Your task to perform on an android device: turn on the 12-hour format for clock Image 0: 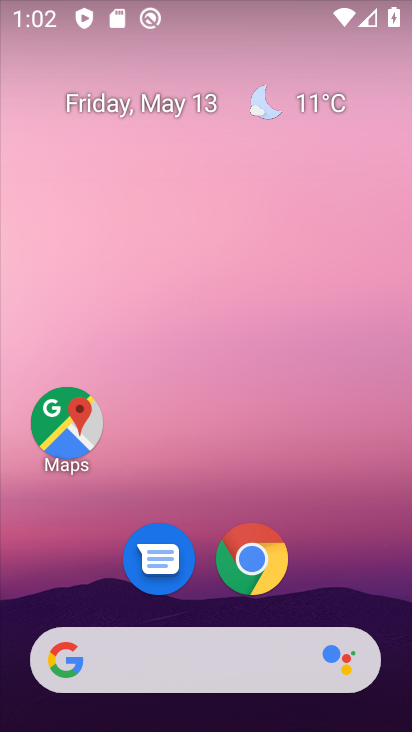
Step 0: drag from (372, 611) to (342, 164)
Your task to perform on an android device: turn on the 12-hour format for clock Image 1: 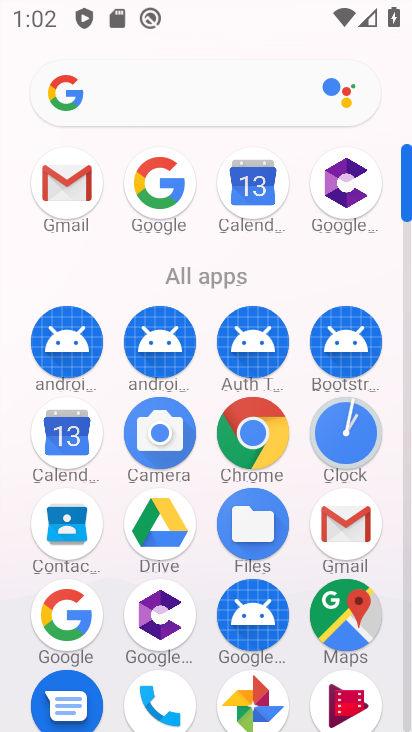
Step 1: click (331, 430)
Your task to perform on an android device: turn on the 12-hour format for clock Image 2: 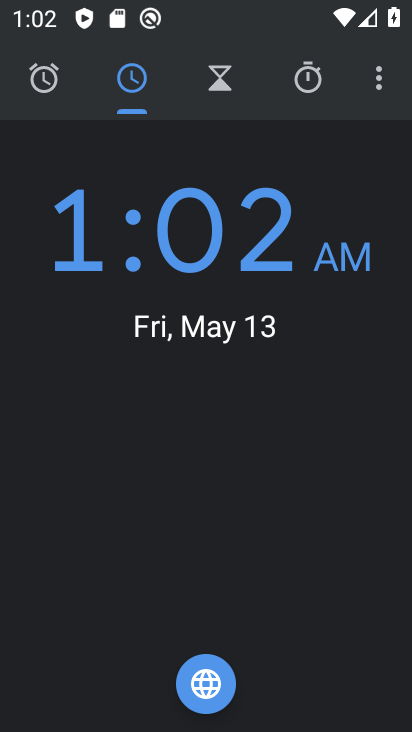
Step 2: click (380, 73)
Your task to perform on an android device: turn on the 12-hour format for clock Image 3: 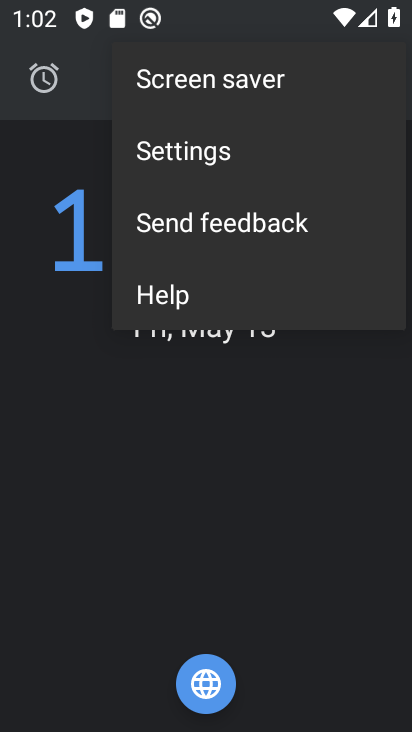
Step 3: click (184, 162)
Your task to perform on an android device: turn on the 12-hour format for clock Image 4: 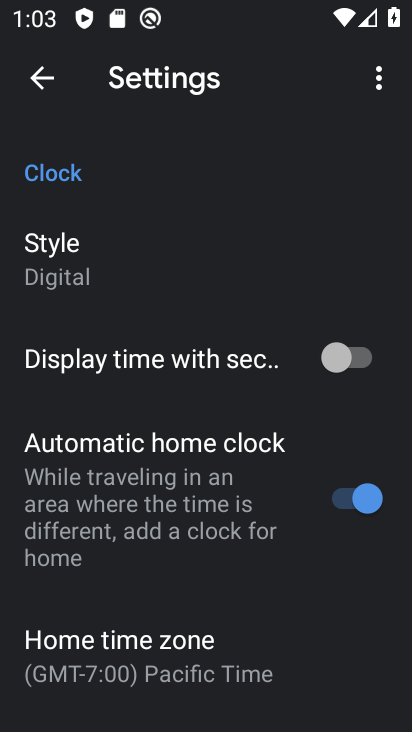
Step 4: drag from (289, 637) to (270, 314)
Your task to perform on an android device: turn on the 12-hour format for clock Image 5: 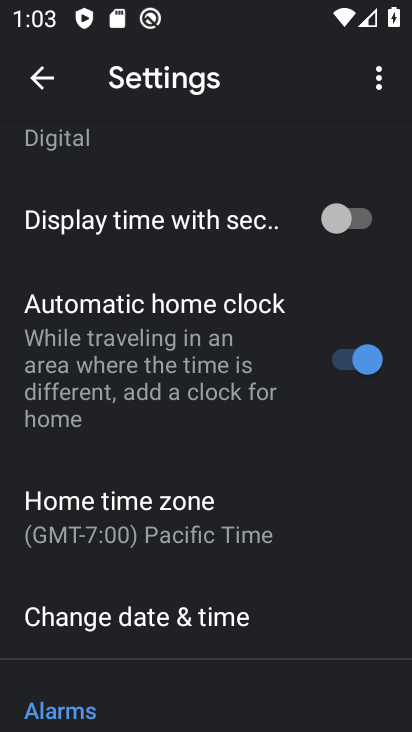
Step 5: drag from (167, 713) to (181, 336)
Your task to perform on an android device: turn on the 12-hour format for clock Image 6: 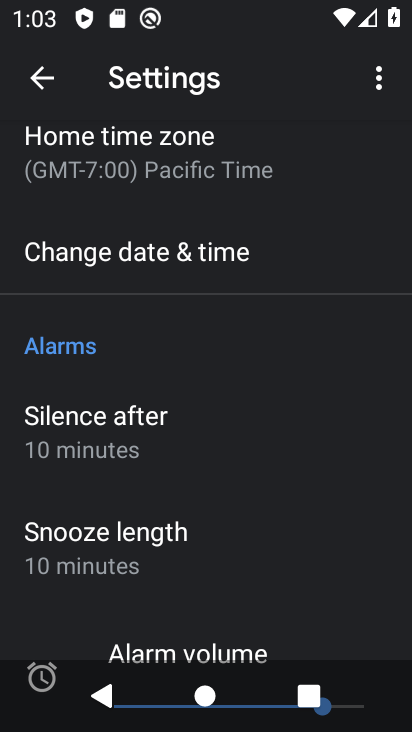
Step 6: drag from (285, 558) to (299, 243)
Your task to perform on an android device: turn on the 12-hour format for clock Image 7: 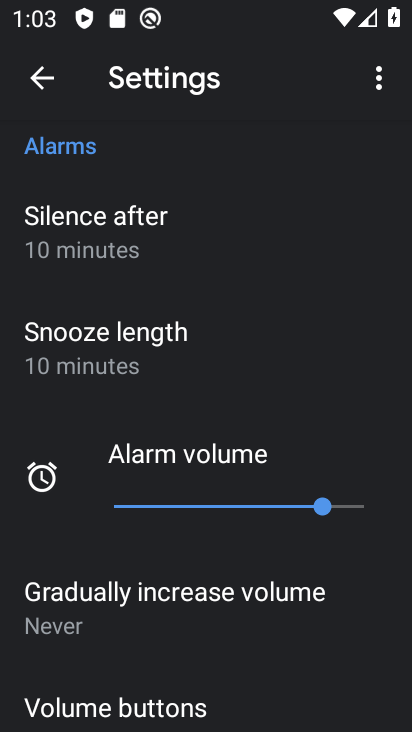
Step 7: drag from (215, 619) to (214, 363)
Your task to perform on an android device: turn on the 12-hour format for clock Image 8: 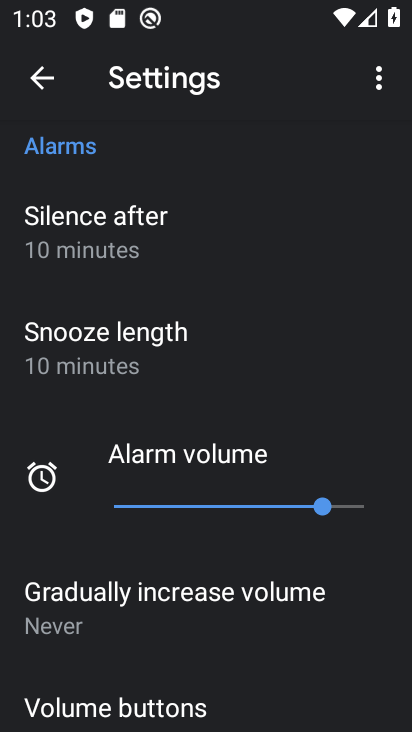
Step 8: drag from (226, 679) to (240, 293)
Your task to perform on an android device: turn on the 12-hour format for clock Image 9: 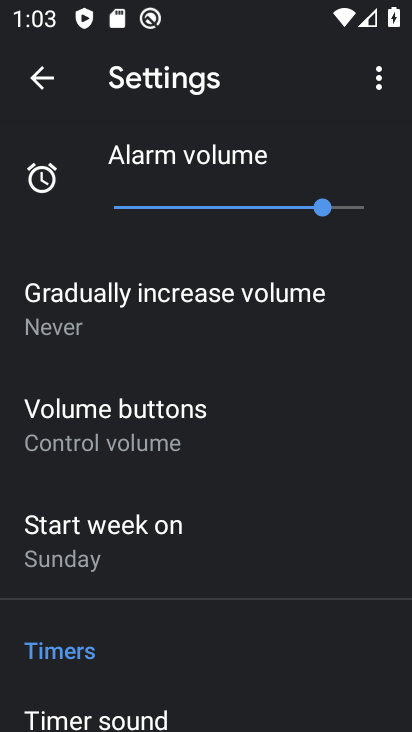
Step 9: drag from (251, 684) to (261, 350)
Your task to perform on an android device: turn on the 12-hour format for clock Image 10: 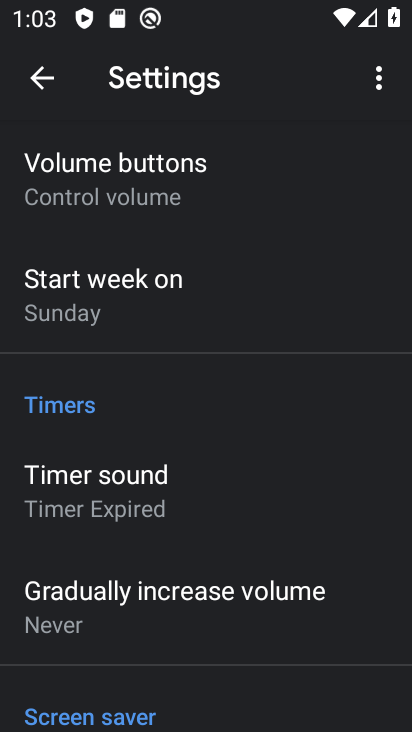
Step 10: drag from (313, 466) to (312, 357)
Your task to perform on an android device: turn on the 12-hour format for clock Image 11: 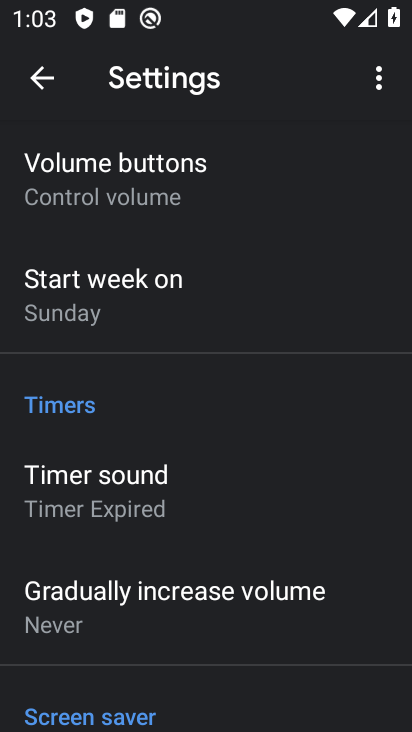
Step 11: click (316, 433)
Your task to perform on an android device: turn on the 12-hour format for clock Image 12: 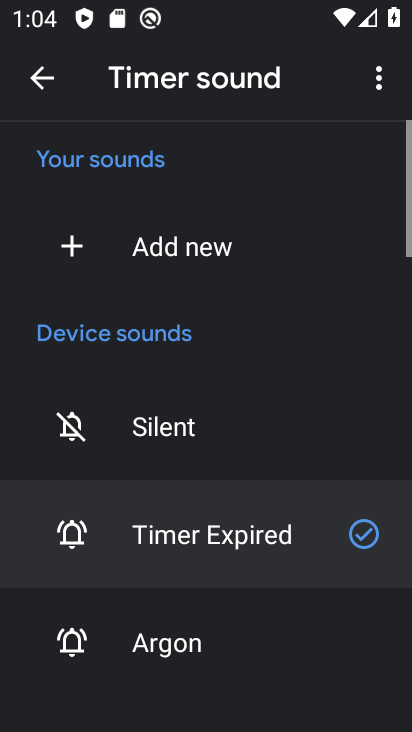
Step 12: drag from (320, 209) to (330, 609)
Your task to perform on an android device: turn on the 12-hour format for clock Image 13: 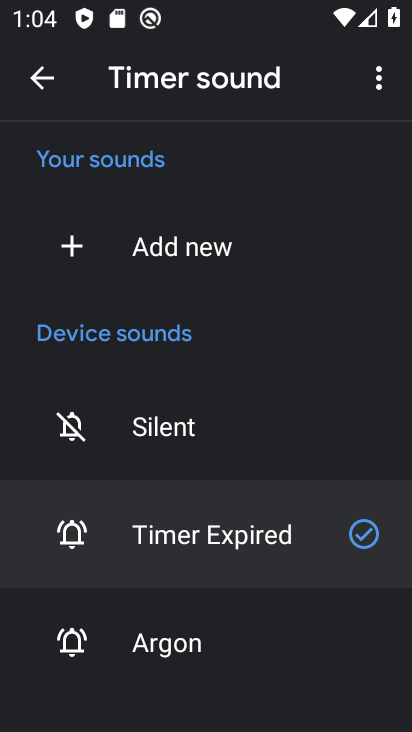
Step 13: drag from (307, 138) to (321, 536)
Your task to perform on an android device: turn on the 12-hour format for clock Image 14: 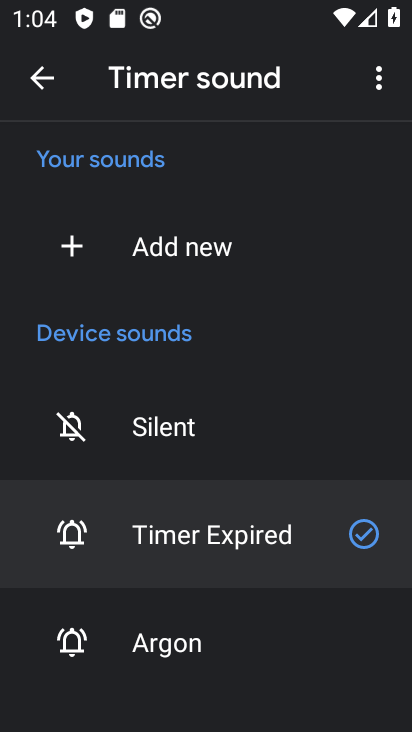
Step 14: drag from (303, 272) to (303, 603)
Your task to perform on an android device: turn on the 12-hour format for clock Image 15: 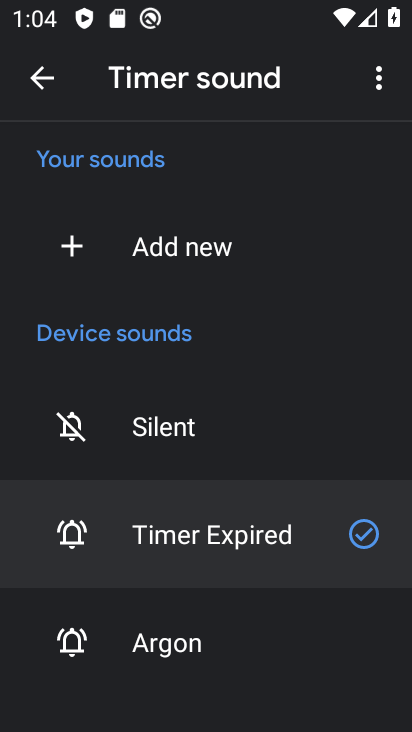
Step 15: click (40, 83)
Your task to perform on an android device: turn on the 12-hour format for clock Image 16: 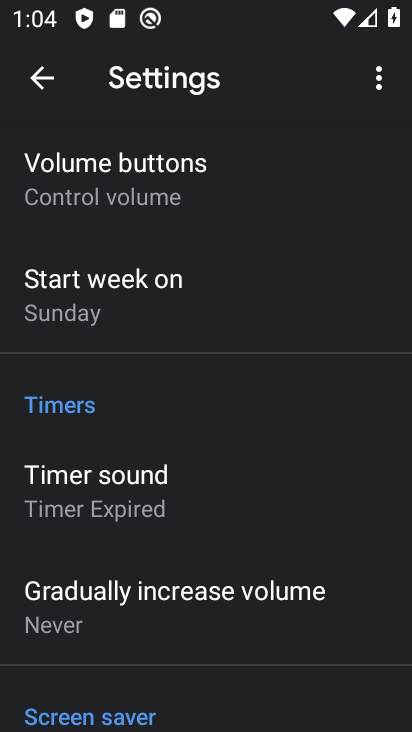
Step 16: drag from (272, 221) to (284, 517)
Your task to perform on an android device: turn on the 12-hour format for clock Image 17: 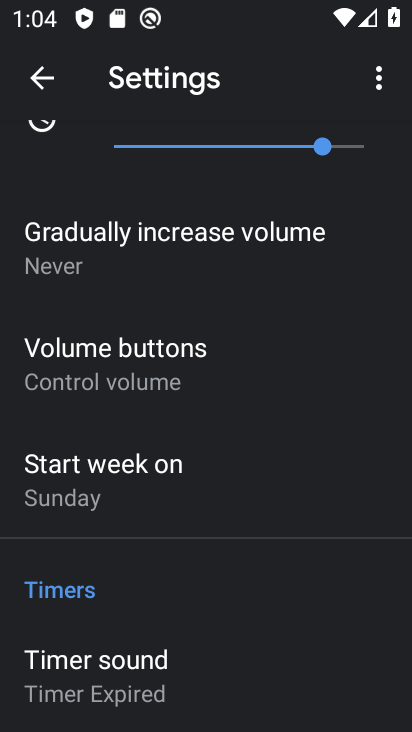
Step 17: drag from (302, 352) to (293, 559)
Your task to perform on an android device: turn on the 12-hour format for clock Image 18: 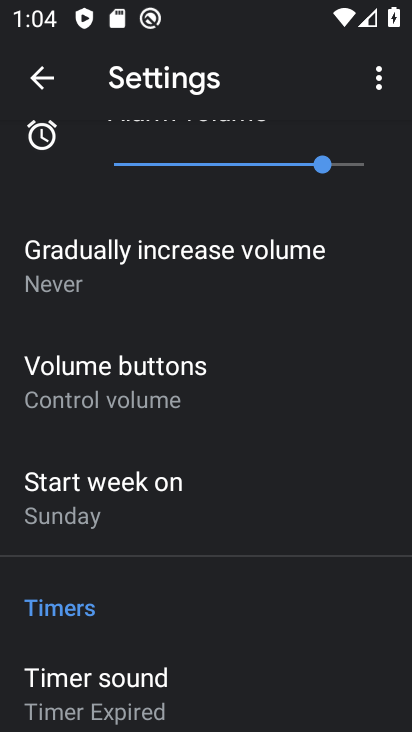
Step 18: click (382, 79)
Your task to perform on an android device: turn on the 12-hour format for clock Image 19: 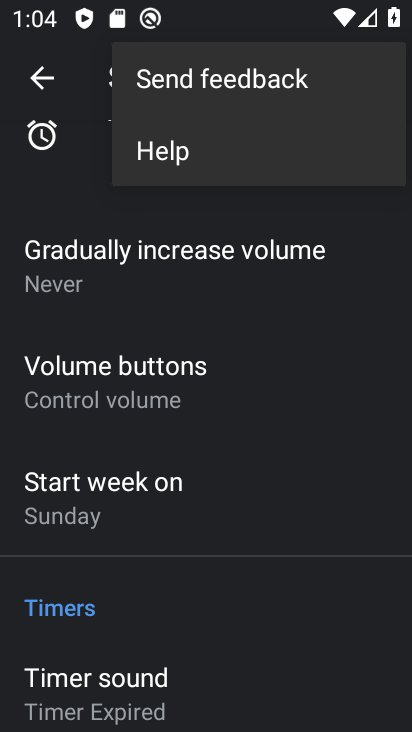
Step 19: click (170, 79)
Your task to perform on an android device: turn on the 12-hour format for clock Image 20: 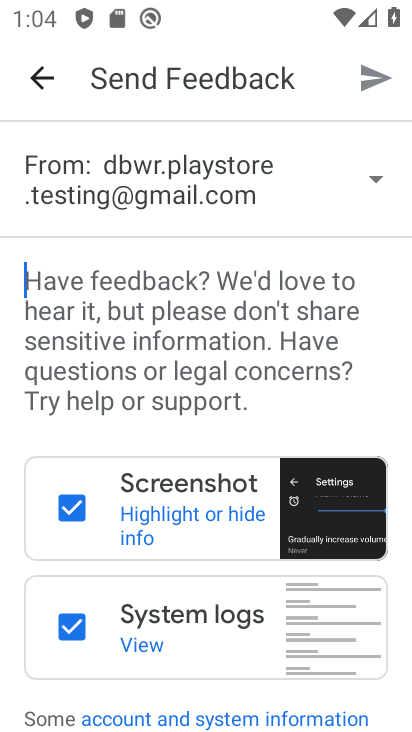
Step 20: drag from (228, 620) to (239, 286)
Your task to perform on an android device: turn on the 12-hour format for clock Image 21: 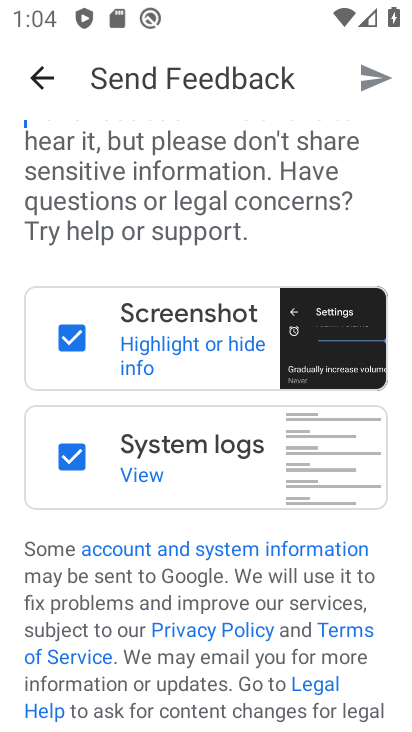
Step 21: drag from (220, 654) to (216, 291)
Your task to perform on an android device: turn on the 12-hour format for clock Image 22: 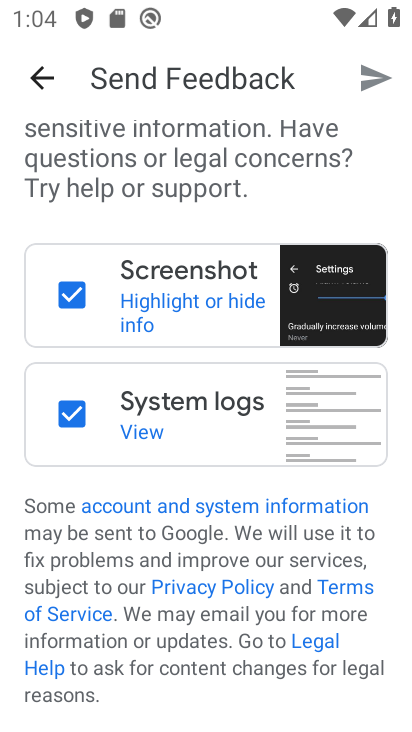
Step 22: press home button
Your task to perform on an android device: turn on the 12-hour format for clock Image 23: 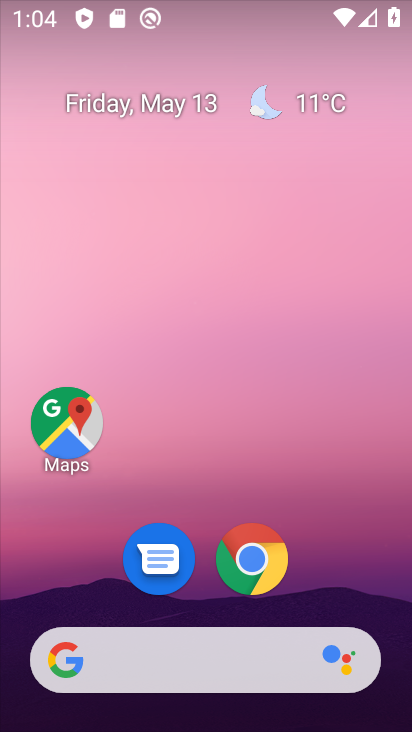
Step 23: drag from (406, 542) to (397, 635)
Your task to perform on an android device: turn on the 12-hour format for clock Image 24: 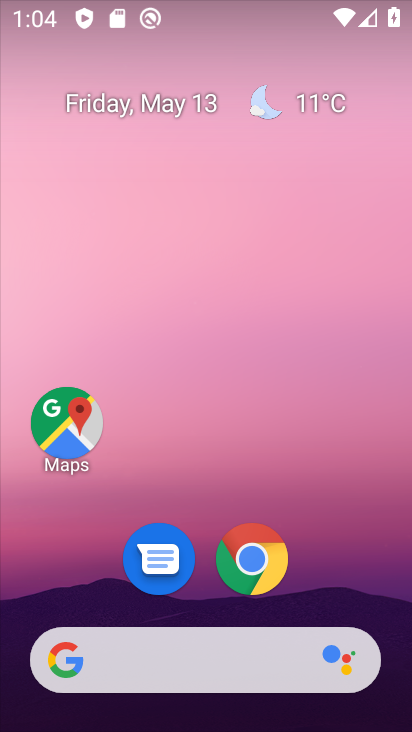
Step 24: drag from (385, 618) to (366, 289)
Your task to perform on an android device: turn on the 12-hour format for clock Image 25: 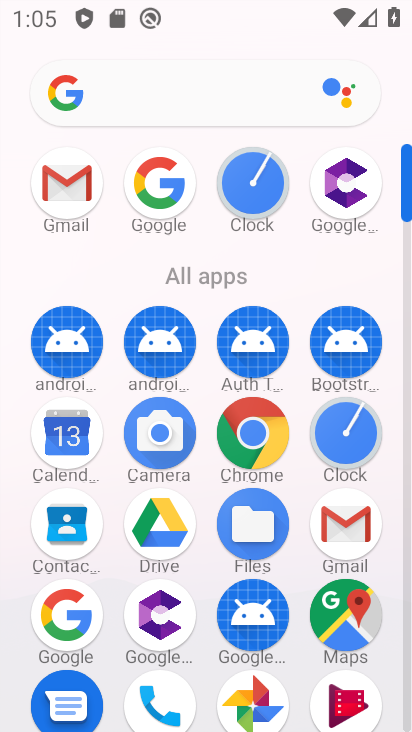
Step 25: click (249, 194)
Your task to perform on an android device: turn on the 12-hour format for clock Image 26: 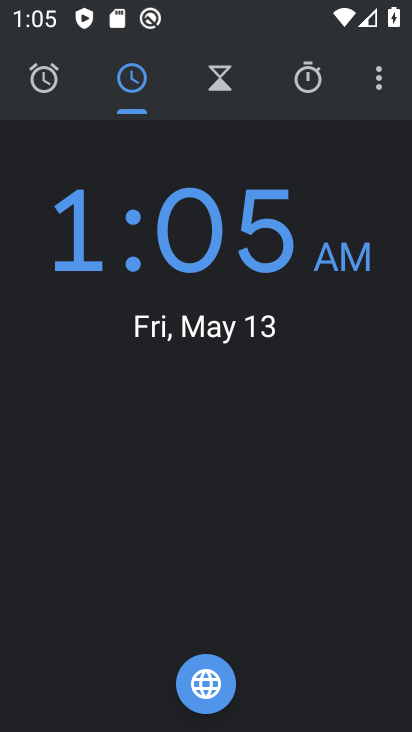
Step 26: click (385, 74)
Your task to perform on an android device: turn on the 12-hour format for clock Image 27: 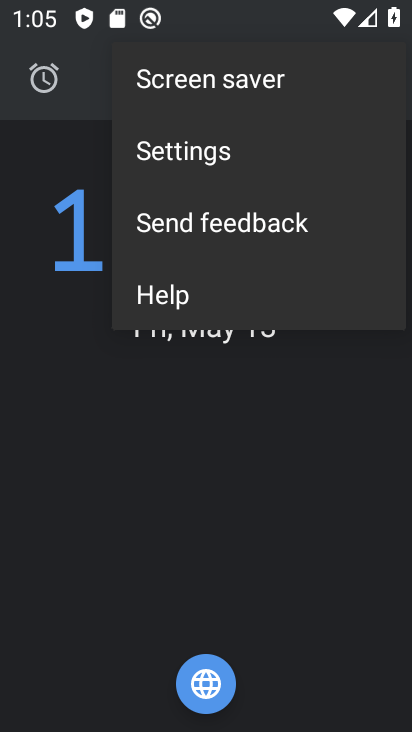
Step 27: click (217, 155)
Your task to perform on an android device: turn on the 12-hour format for clock Image 28: 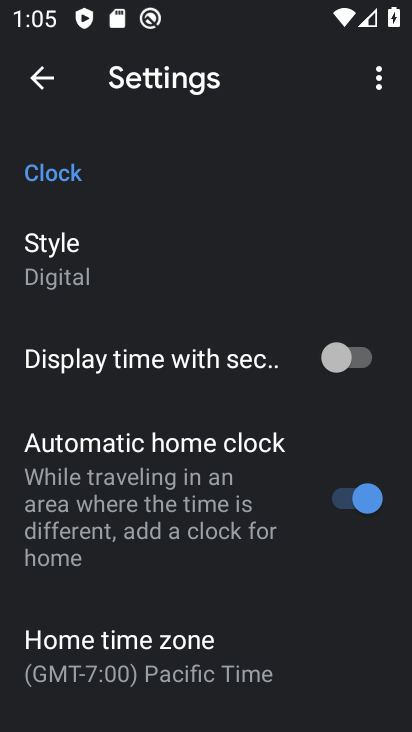
Step 28: drag from (275, 628) to (265, 335)
Your task to perform on an android device: turn on the 12-hour format for clock Image 29: 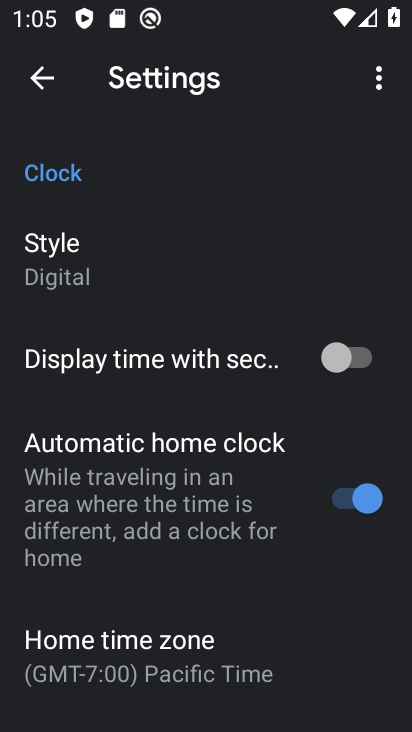
Step 29: drag from (279, 649) to (269, 523)
Your task to perform on an android device: turn on the 12-hour format for clock Image 30: 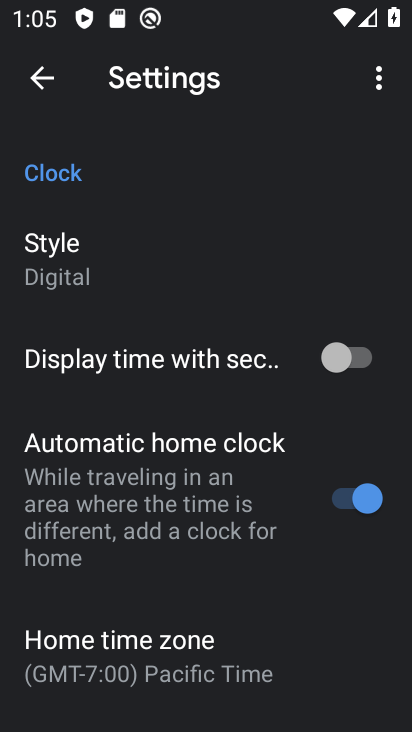
Step 30: drag from (155, 669) to (193, 356)
Your task to perform on an android device: turn on the 12-hour format for clock Image 31: 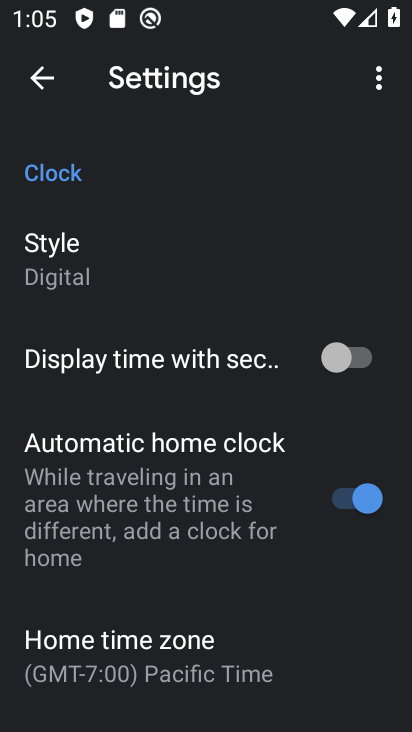
Step 31: drag from (138, 646) to (168, 228)
Your task to perform on an android device: turn on the 12-hour format for clock Image 32: 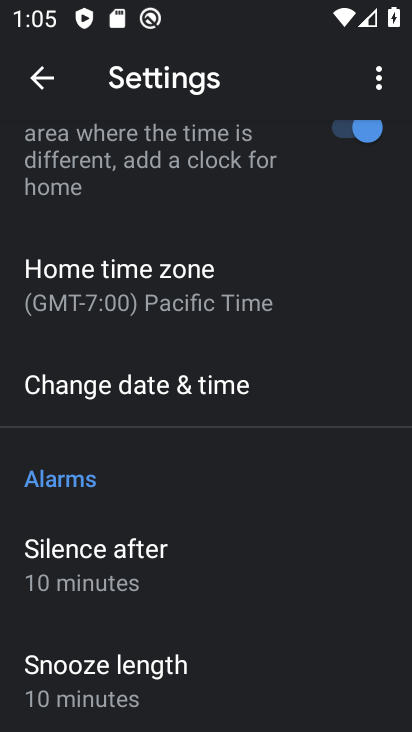
Step 32: drag from (167, 583) to (181, 256)
Your task to perform on an android device: turn on the 12-hour format for clock Image 33: 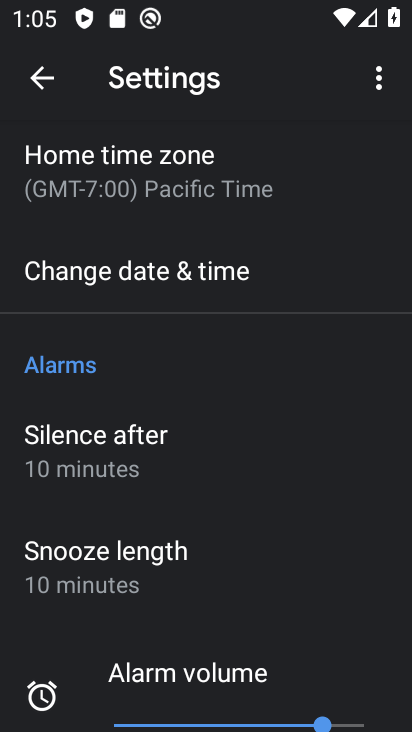
Step 33: click (149, 283)
Your task to perform on an android device: turn on the 12-hour format for clock Image 34: 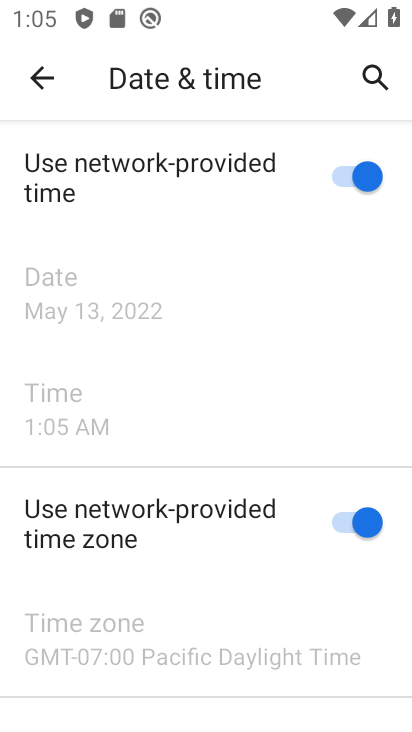
Step 34: task complete